Your task to perform on an android device: Open settings on Google Maps Image 0: 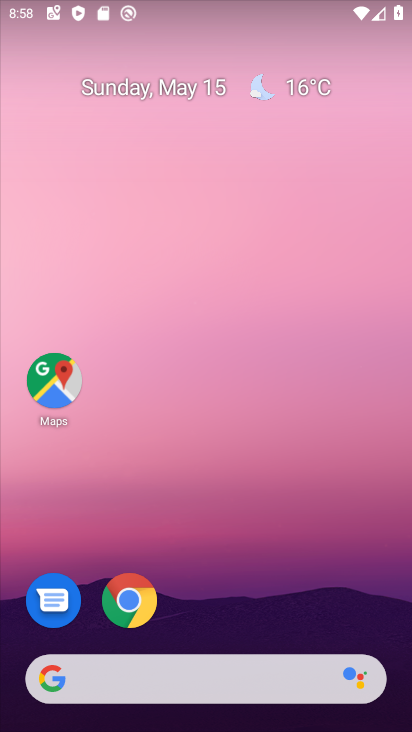
Step 0: click (50, 385)
Your task to perform on an android device: Open settings on Google Maps Image 1: 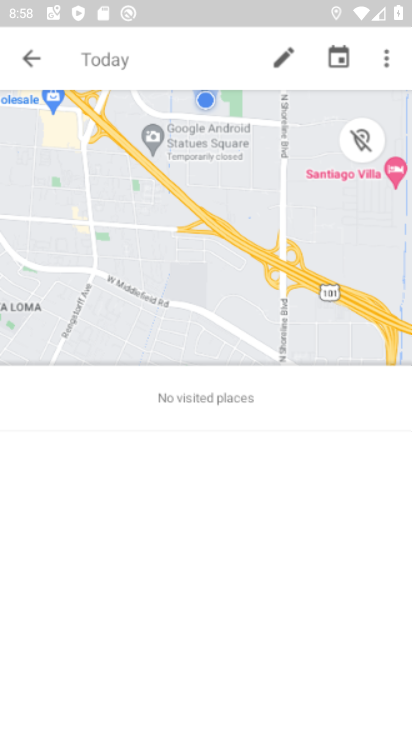
Step 1: press back button
Your task to perform on an android device: Open settings on Google Maps Image 2: 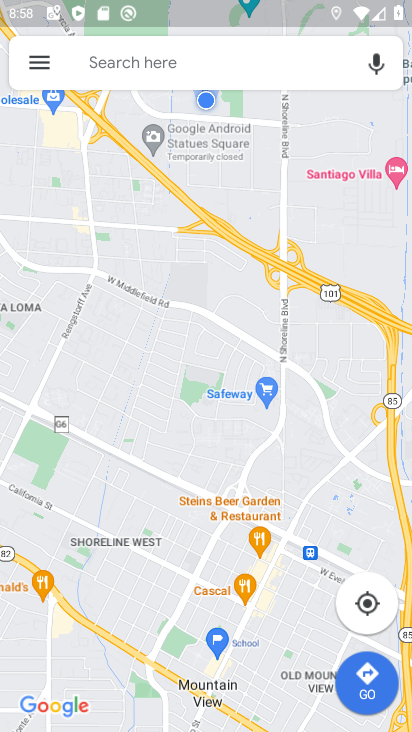
Step 2: click (38, 59)
Your task to perform on an android device: Open settings on Google Maps Image 3: 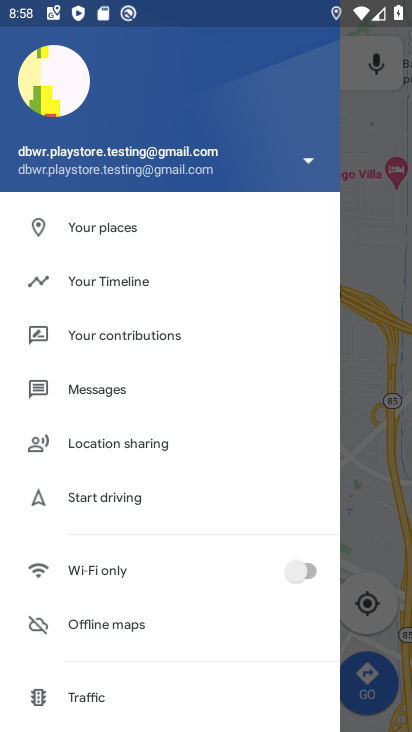
Step 3: drag from (132, 663) to (167, 180)
Your task to perform on an android device: Open settings on Google Maps Image 4: 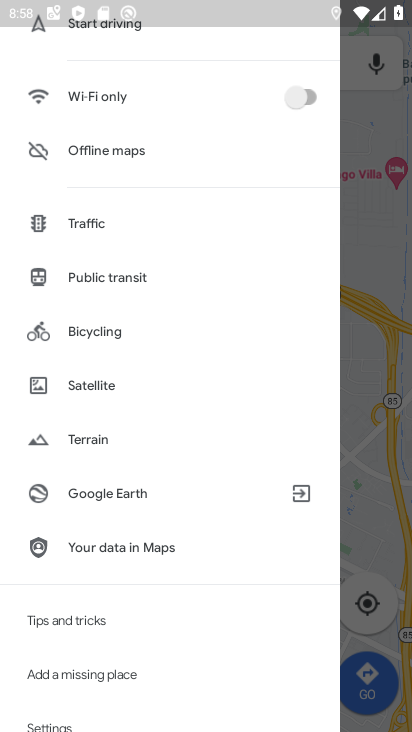
Step 4: drag from (124, 146) to (201, 42)
Your task to perform on an android device: Open settings on Google Maps Image 5: 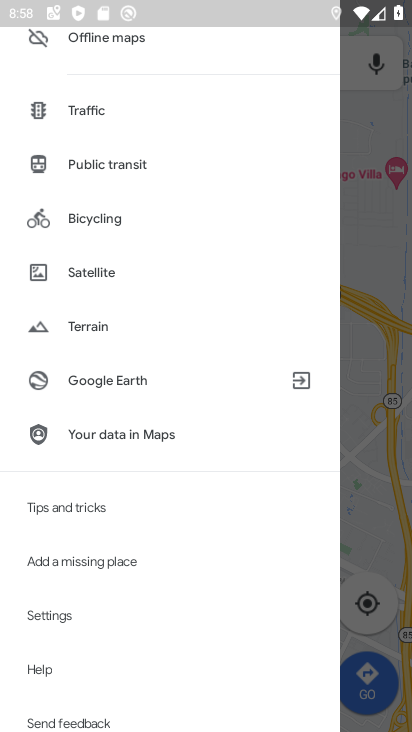
Step 5: click (40, 607)
Your task to perform on an android device: Open settings on Google Maps Image 6: 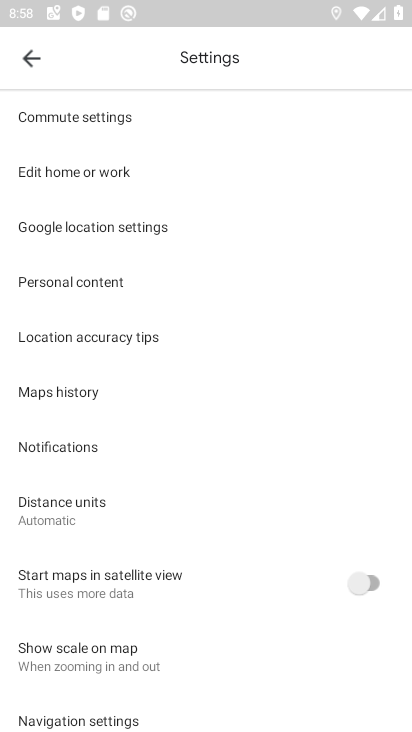
Step 6: task complete